Your task to perform on an android device: snooze an email in the gmail app Image 0: 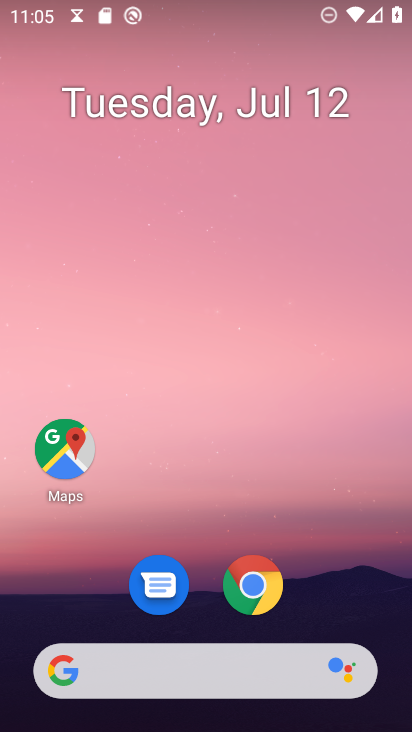
Step 0: drag from (205, 671) to (385, 171)
Your task to perform on an android device: snooze an email in the gmail app Image 1: 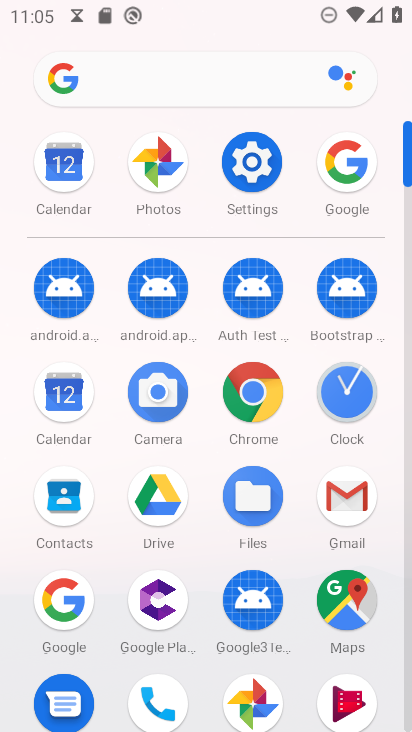
Step 1: click (347, 498)
Your task to perform on an android device: snooze an email in the gmail app Image 2: 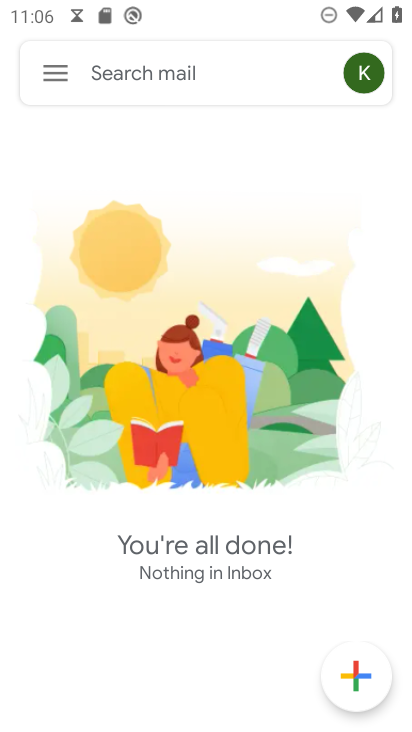
Step 2: task complete